Your task to perform on an android device: Check the weather Image 0: 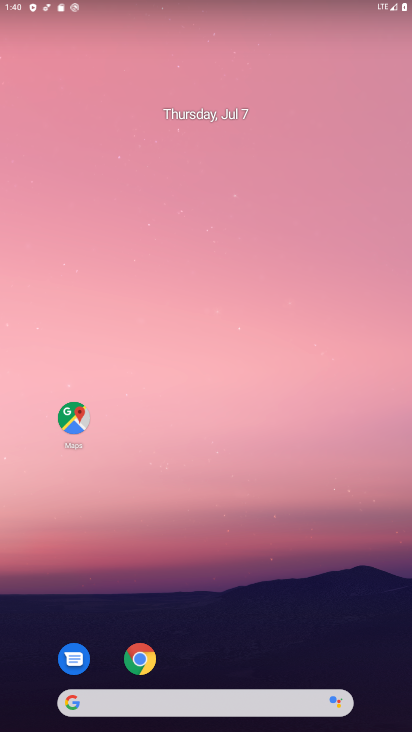
Step 0: drag from (249, 595) to (228, 60)
Your task to perform on an android device: Check the weather Image 1: 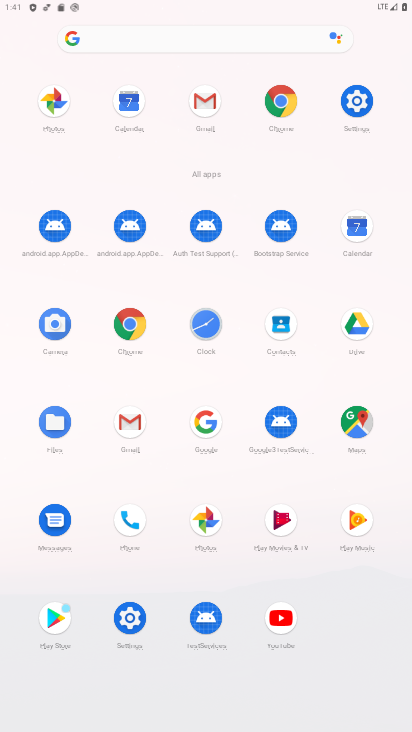
Step 1: click (203, 420)
Your task to perform on an android device: Check the weather Image 2: 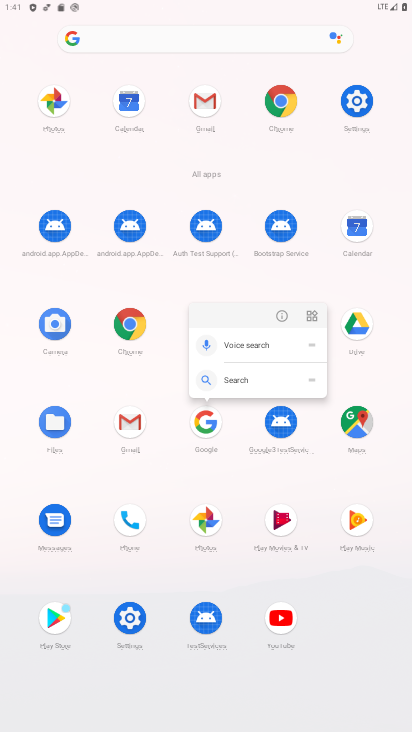
Step 2: click (203, 420)
Your task to perform on an android device: Check the weather Image 3: 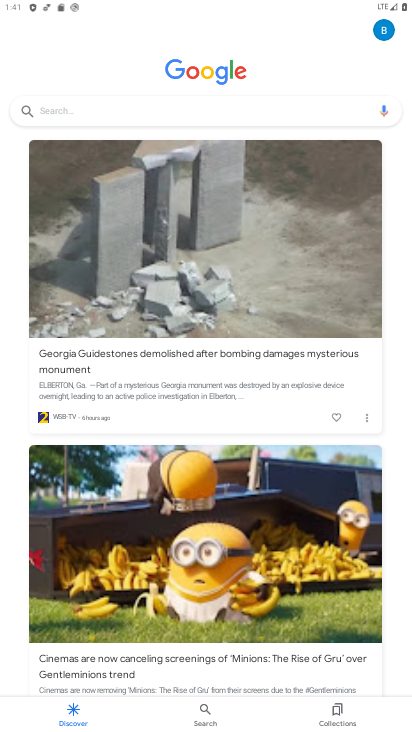
Step 3: click (178, 108)
Your task to perform on an android device: Check the weather Image 4: 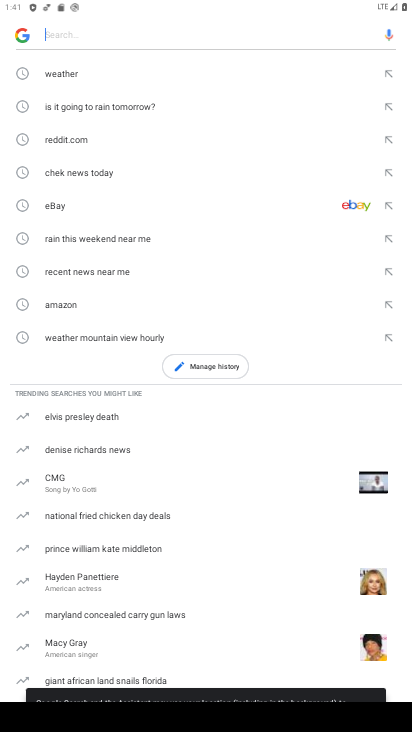
Step 4: click (61, 77)
Your task to perform on an android device: Check the weather Image 5: 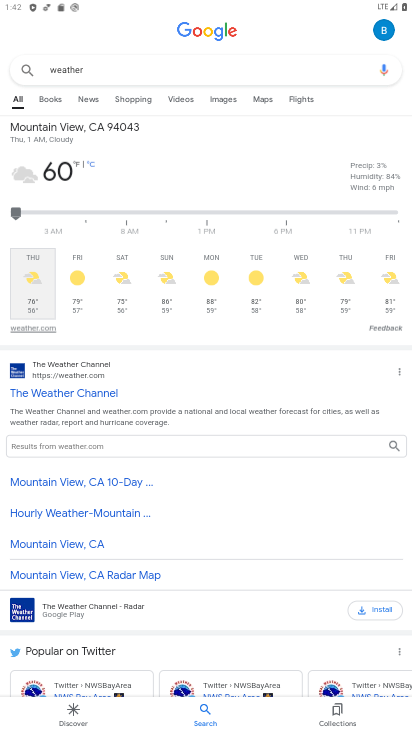
Step 5: task complete